Your task to perform on an android device: change the clock display to analog Image 0: 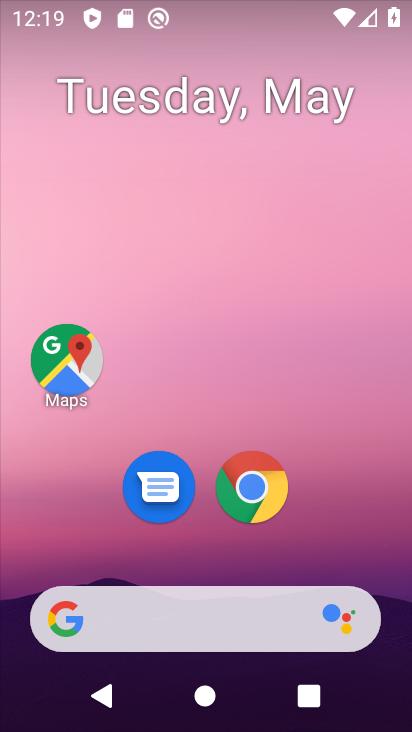
Step 0: drag from (330, 545) to (244, 28)
Your task to perform on an android device: change the clock display to analog Image 1: 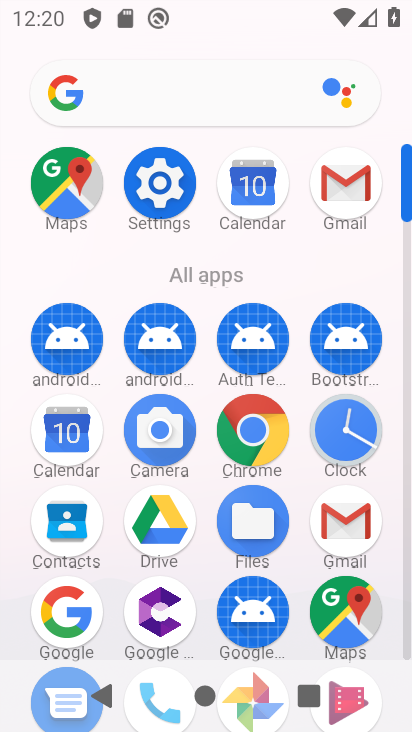
Step 1: drag from (17, 602) to (24, 254)
Your task to perform on an android device: change the clock display to analog Image 2: 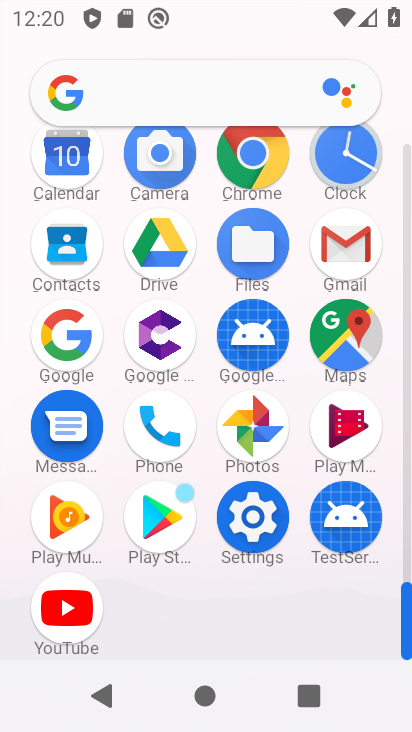
Step 2: click (340, 153)
Your task to perform on an android device: change the clock display to analog Image 3: 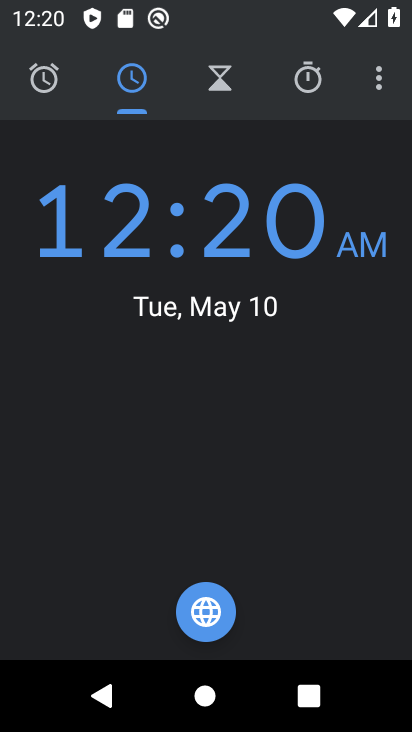
Step 3: drag from (383, 81) to (281, 152)
Your task to perform on an android device: change the clock display to analog Image 4: 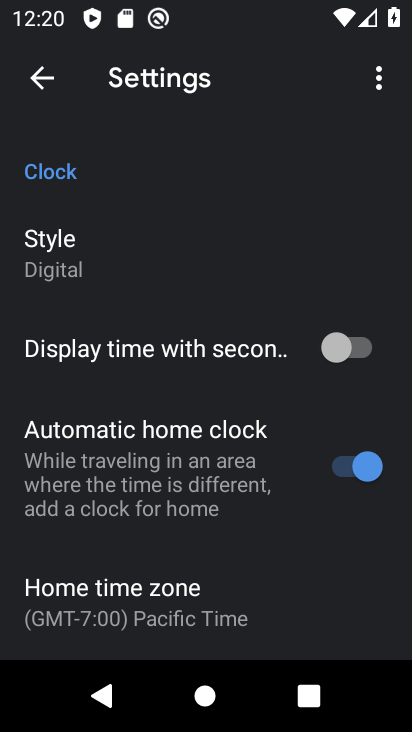
Step 4: drag from (228, 505) to (246, 204)
Your task to perform on an android device: change the clock display to analog Image 5: 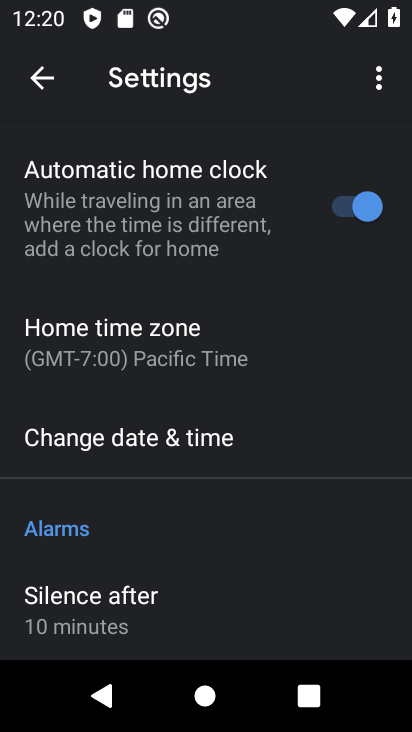
Step 5: drag from (207, 226) to (228, 586)
Your task to perform on an android device: change the clock display to analog Image 6: 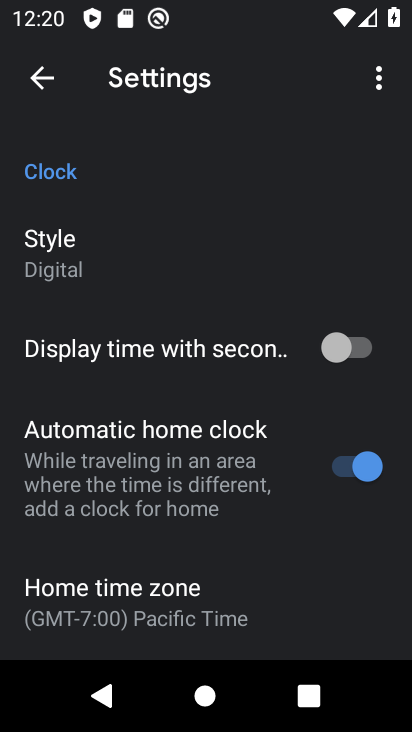
Step 6: click (113, 248)
Your task to perform on an android device: change the clock display to analog Image 7: 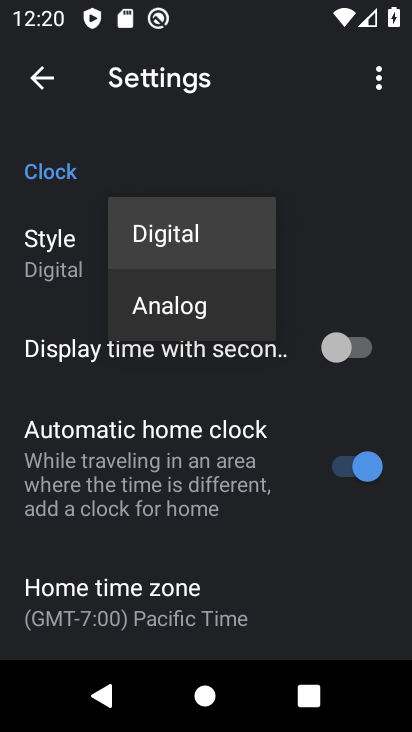
Step 7: click (154, 301)
Your task to perform on an android device: change the clock display to analog Image 8: 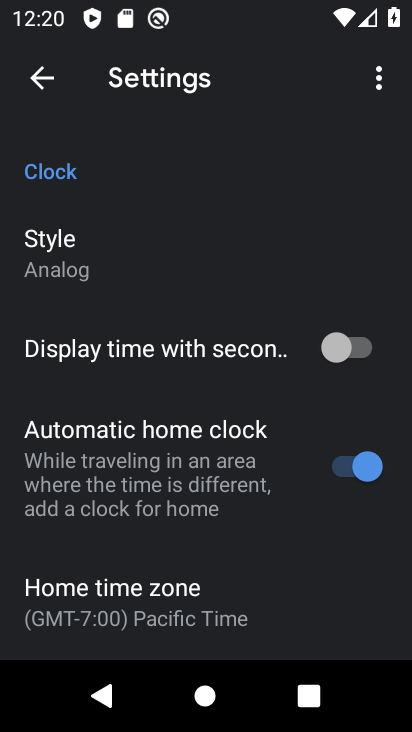
Step 8: task complete